Your task to perform on an android device: check data usage Image 0: 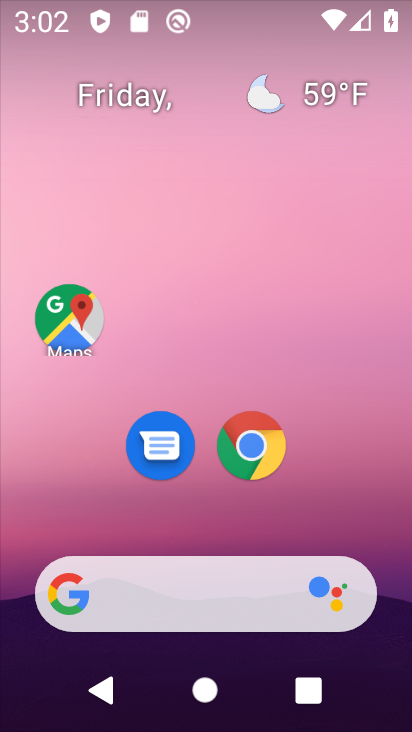
Step 0: drag from (368, 540) to (396, 80)
Your task to perform on an android device: check data usage Image 1: 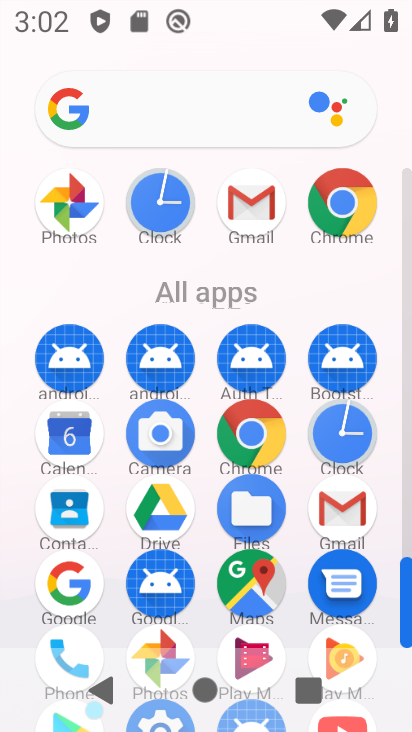
Step 1: click (407, 658)
Your task to perform on an android device: check data usage Image 2: 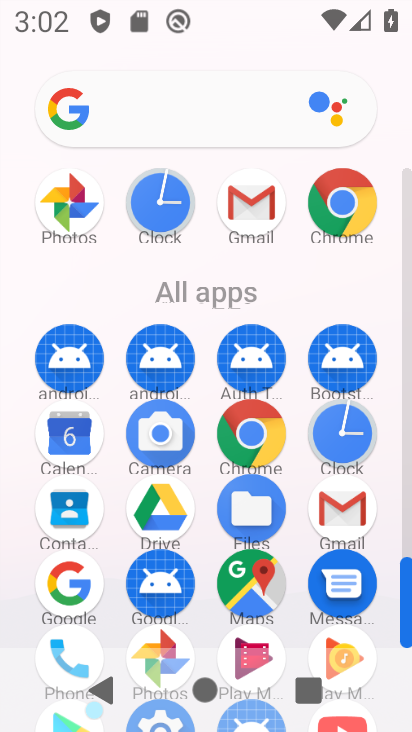
Step 2: drag from (407, 537) to (403, 468)
Your task to perform on an android device: check data usage Image 3: 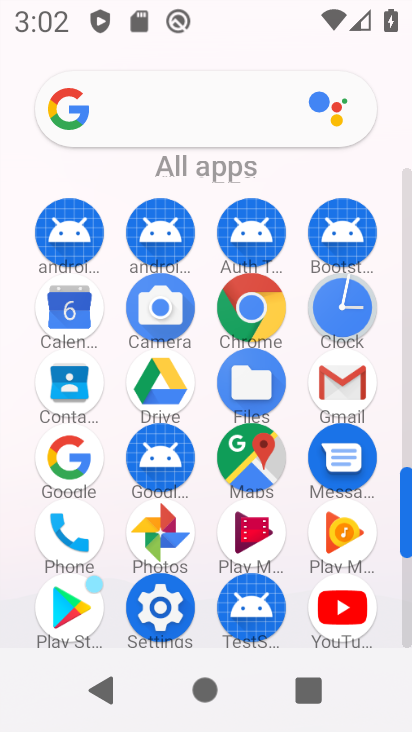
Step 3: click (158, 600)
Your task to perform on an android device: check data usage Image 4: 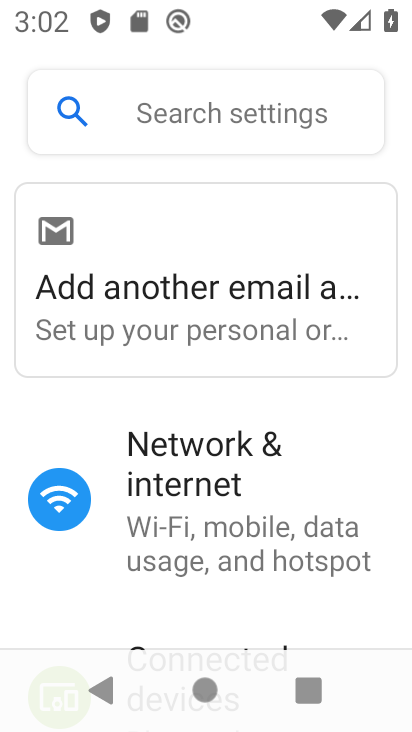
Step 4: click (190, 499)
Your task to perform on an android device: check data usage Image 5: 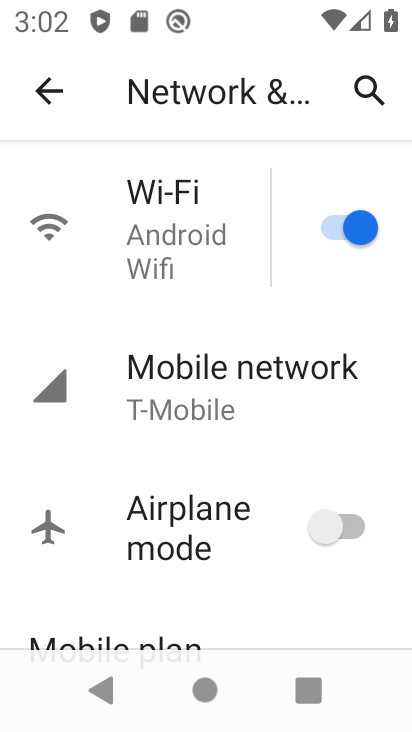
Step 5: click (199, 409)
Your task to perform on an android device: check data usage Image 6: 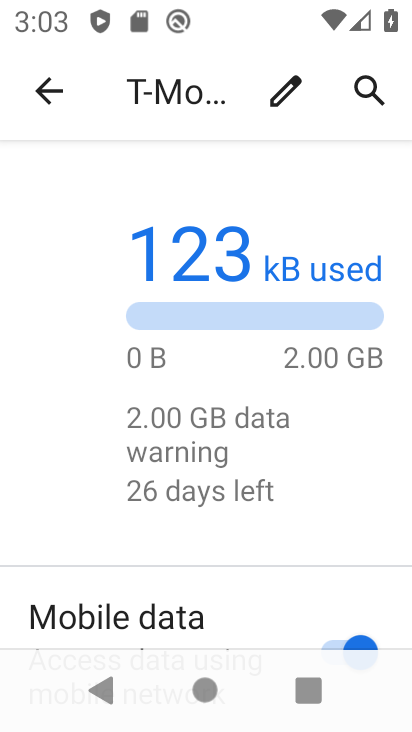
Step 6: task complete